Your task to perform on an android device: Go to display settings Image 0: 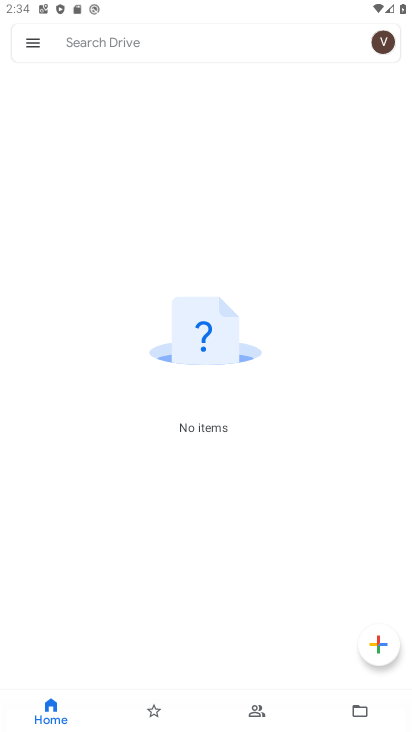
Step 0: press home button
Your task to perform on an android device: Go to display settings Image 1: 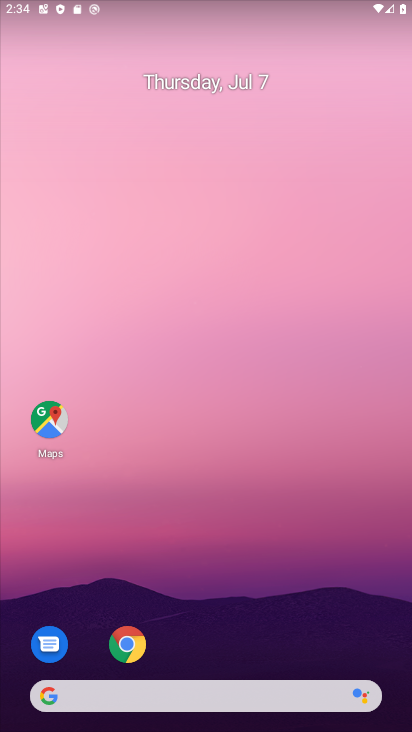
Step 1: drag from (264, 615) to (261, 213)
Your task to perform on an android device: Go to display settings Image 2: 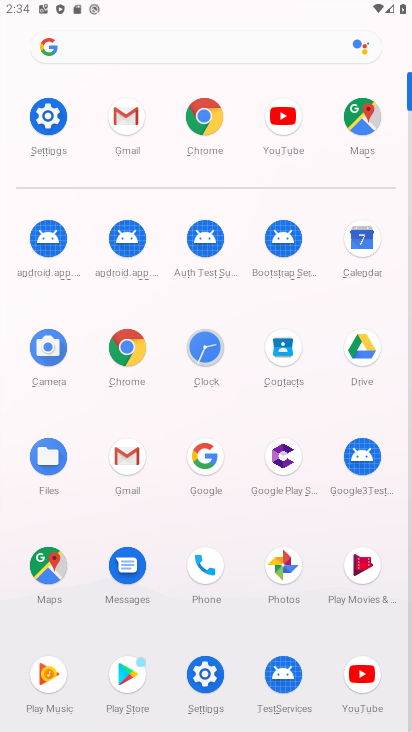
Step 2: click (46, 117)
Your task to perform on an android device: Go to display settings Image 3: 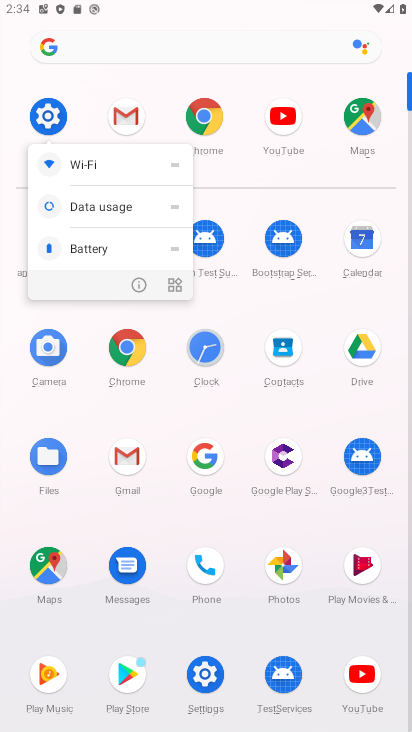
Step 3: click (46, 117)
Your task to perform on an android device: Go to display settings Image 4: 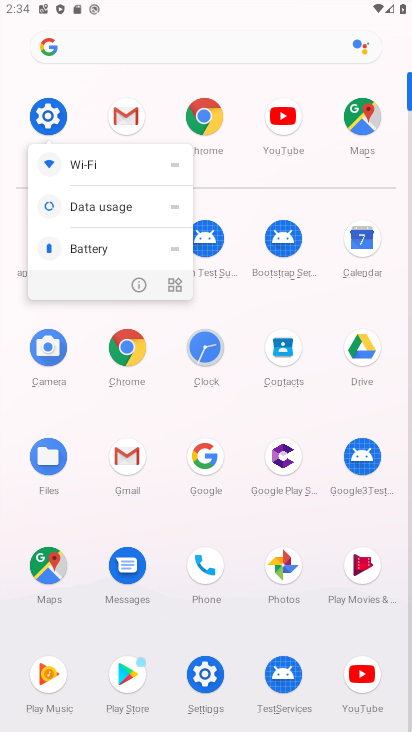
Step 4: click (46, 117)
Your task to perform on an android device: Go to display settings Image 5: 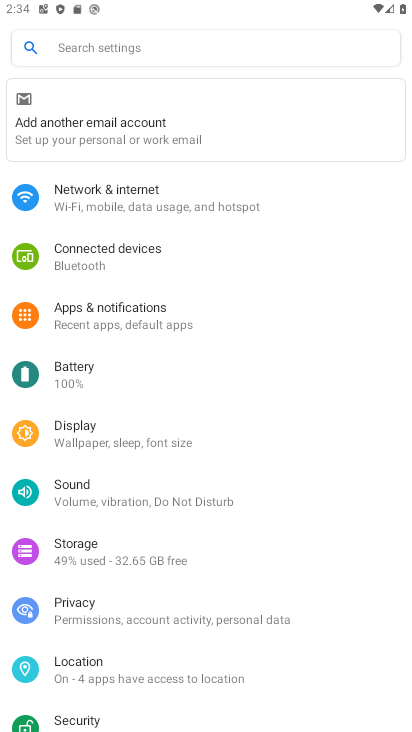
Step 5: click (69, 426)
Your task to perform on an android device: Go to display settings Image 6: 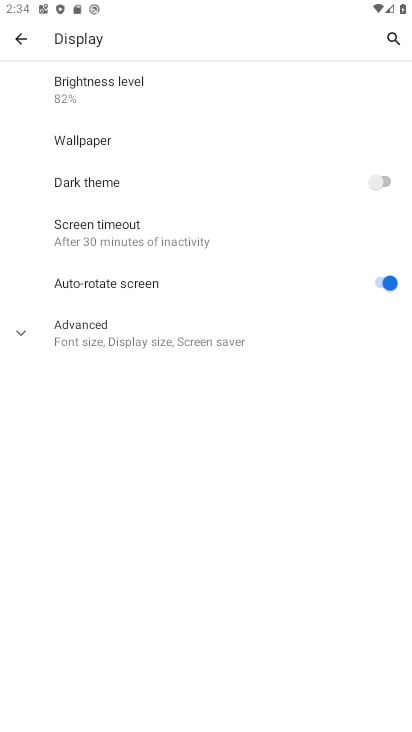
Step 6: task complete